Your task to perform on an android device: What is the recent news? Image 0: 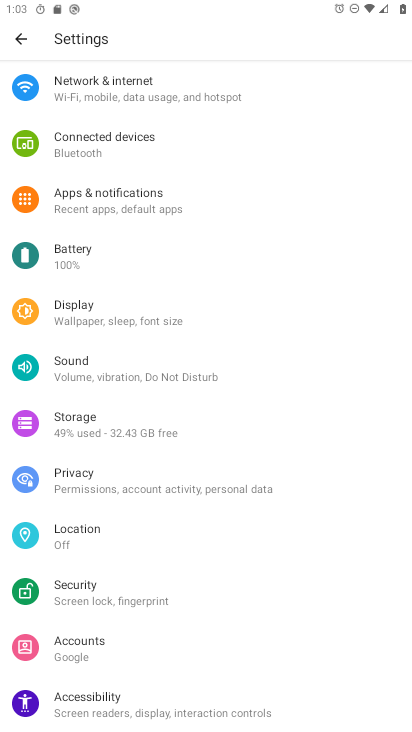
Step 0: press home button
Your task to perform on an android device: What is the recent news? Image 1: 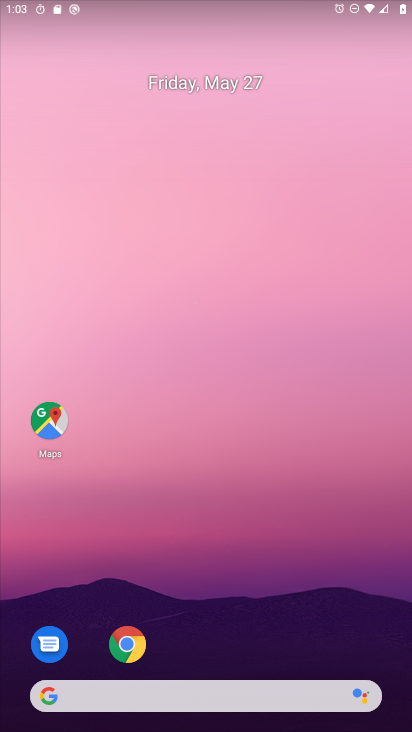
Step 1: drag from (210, 651) to (179, 229)
Your task to perform on an android device: What is the recent news? Image 2: 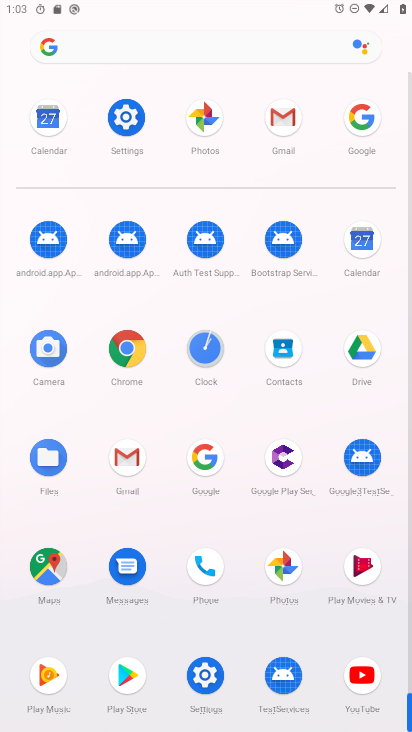
Step 2: click (351, 126)
Your task to perform on an android device: What is the recent news? Image 3: 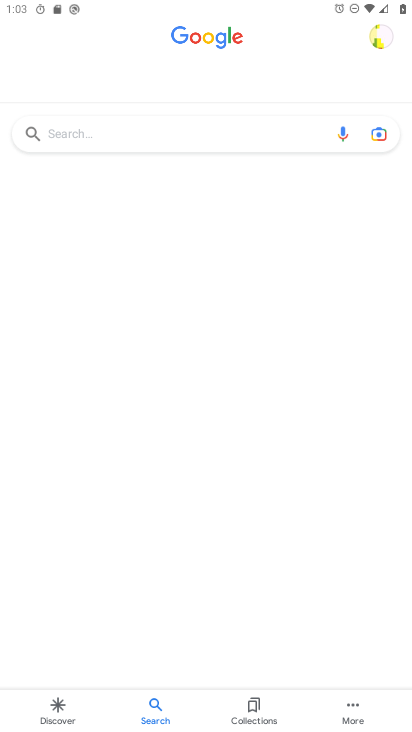
Step 3: click (165, 142)
Your task to perform on an android device: What is the recent news? Image 4: 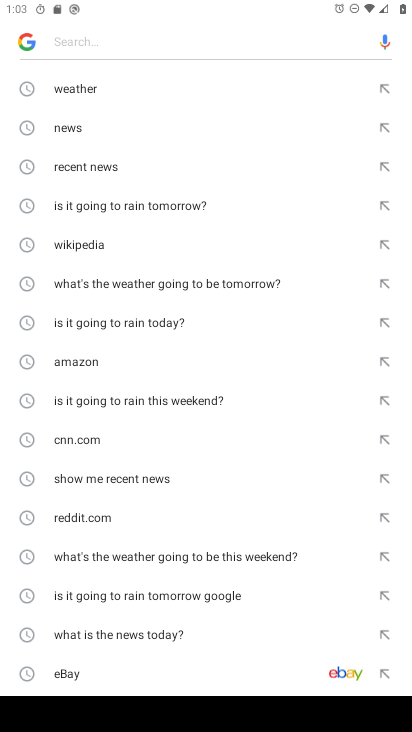
Step 4: click (150, 132)
Your task to perform on an android device: What is the recent news? Image 5: 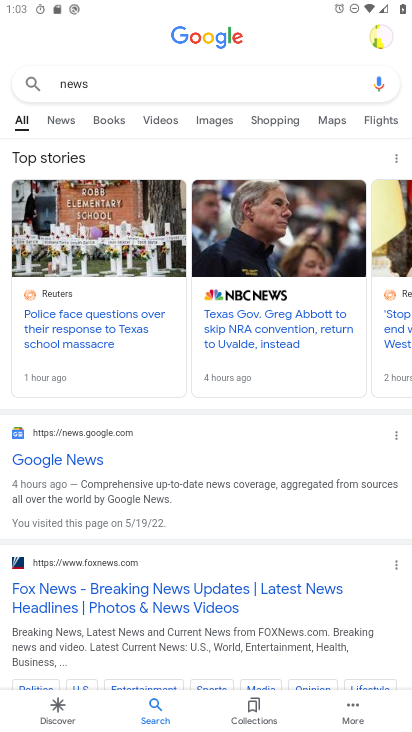
Step 5: click (65, 116)
Your task to perform on an android device: What is the recent news? Image 6: 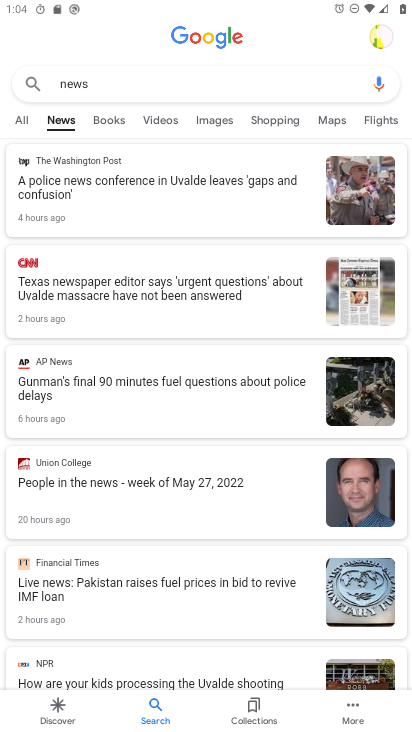
Step 6: task complete